Your task to perform on an android device: See recent photos Image 0: 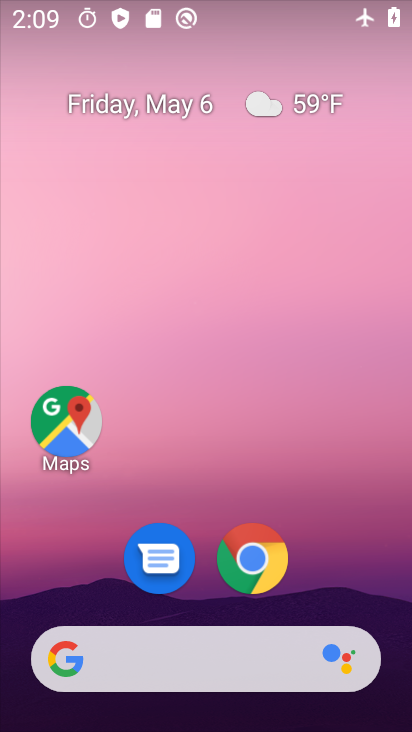
Step 0: drag from (215, 716) to (188, 216)
Your task to perform on an android device: See recent photos Image 1: 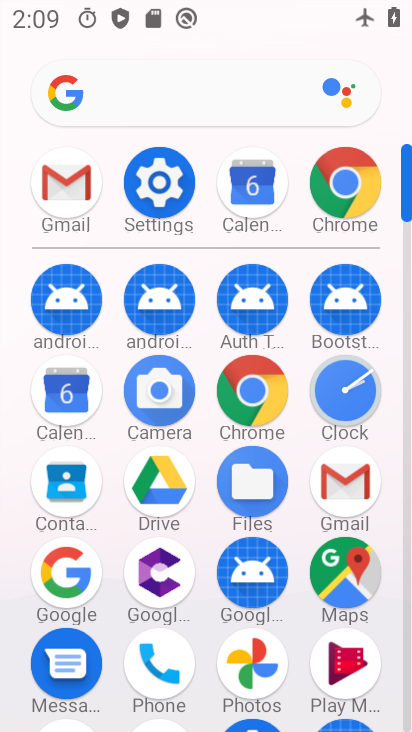
Step 1: click (260, 655)
Your task to perform on an android device: See recent photos Image 2: 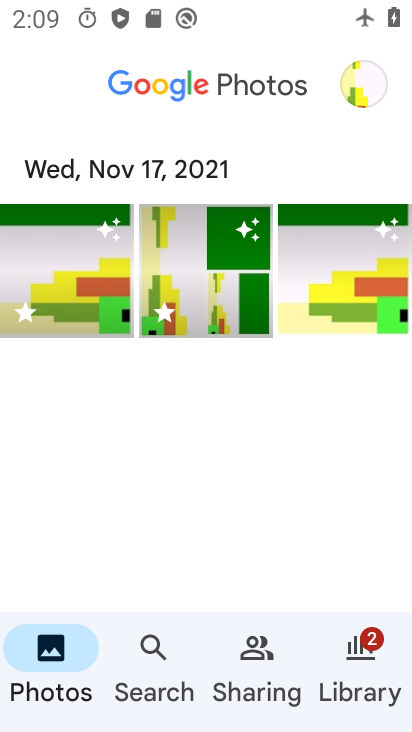
Step 2: click (81, 285)
Your task to perform on an android device: See recent photos Image 3: 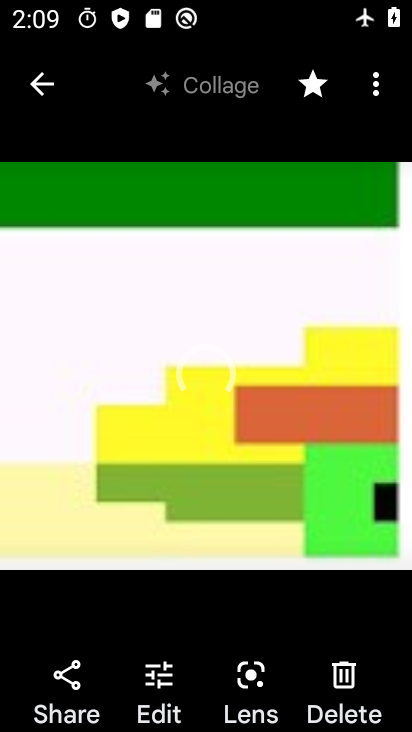
Step 3: task complete